Your task to perform on an android device: turn off translation in the chrome app Image 0: 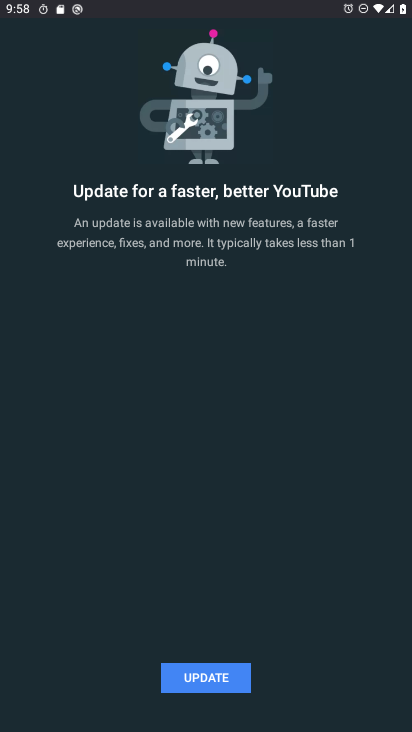
Step 0: press home button
Your task to perform on an android device: turn off translation in the chrome app Image 1: 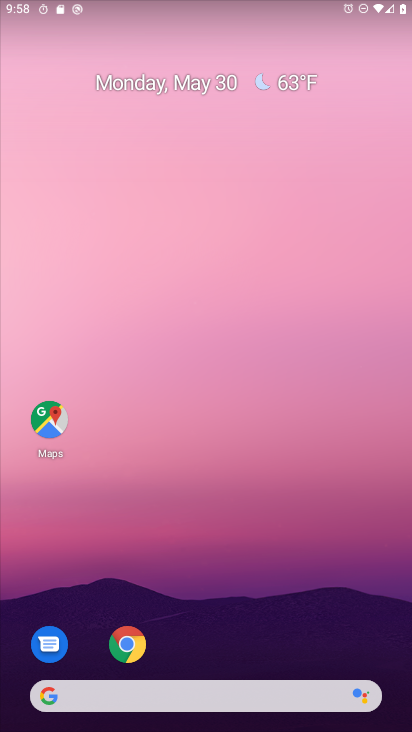
Step 1: click (127, 643)
Your task to perform on an android device: turn off translation in the chrome app Image 2: 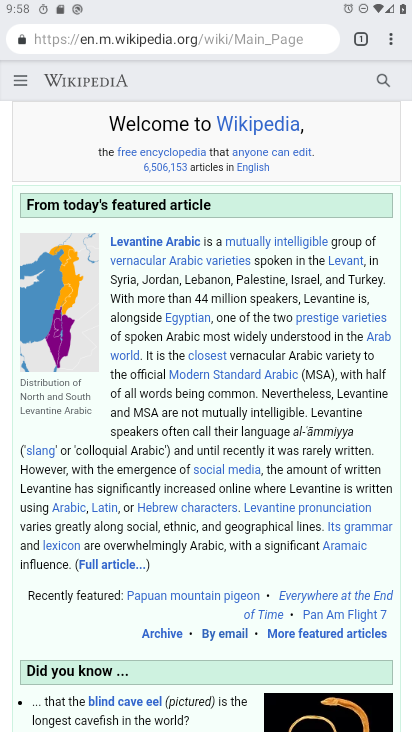
Step 2: click (385, 38)
Your task to perform on an android device: turn off translation in the chrome app Image 3: 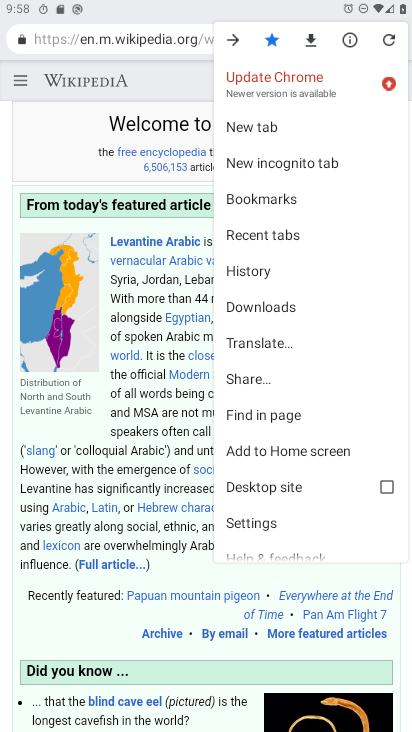
Step 3: click (262, 520)
Your task to perform on an android device: turn off translation in the chrome app Image 4: 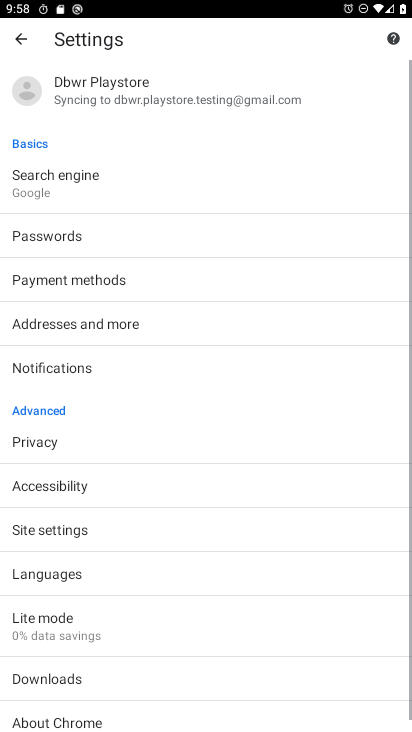
Step 4: drag from (140, 558) to (146, 322)
Your task to perform on an android device: turn off translation in the chrome app Image 5: 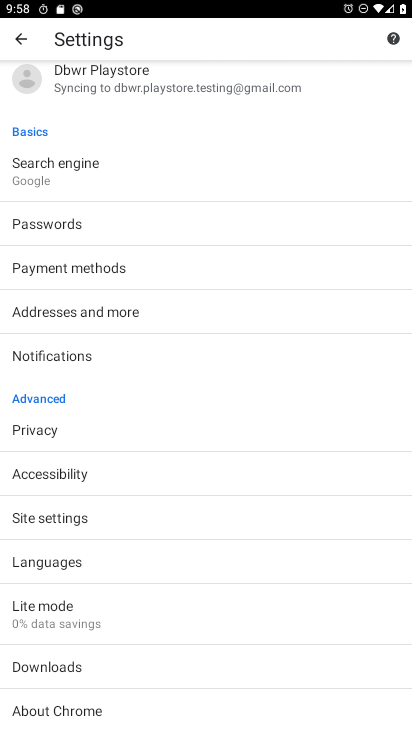
Step 5: click (52, 561)
Your task to perform on an android device: turn off translation in the chrome app Image 6: 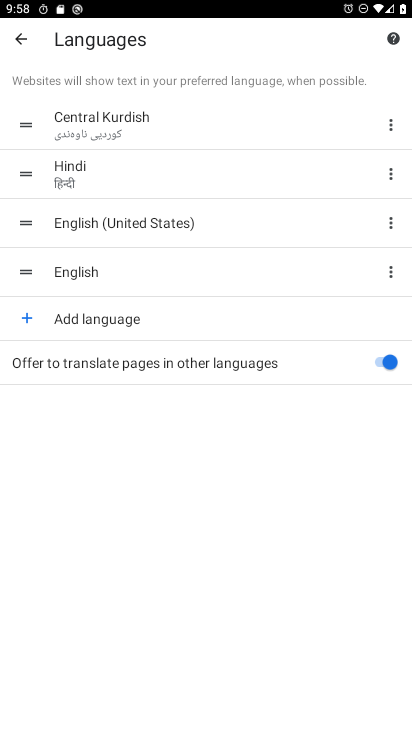
Step 6: click (380, 369)
Your task to perform on an android device: turn off translation in the chrome app Image 7: 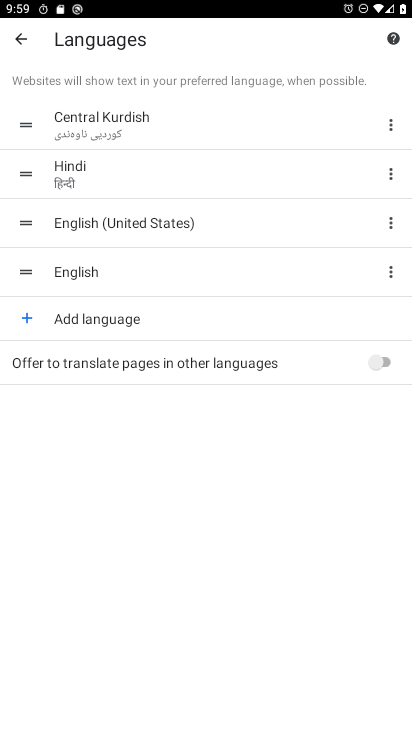
Step 7: task complete